Your task to perform on an android device: move an email to a new category in the gmail app Image 0: 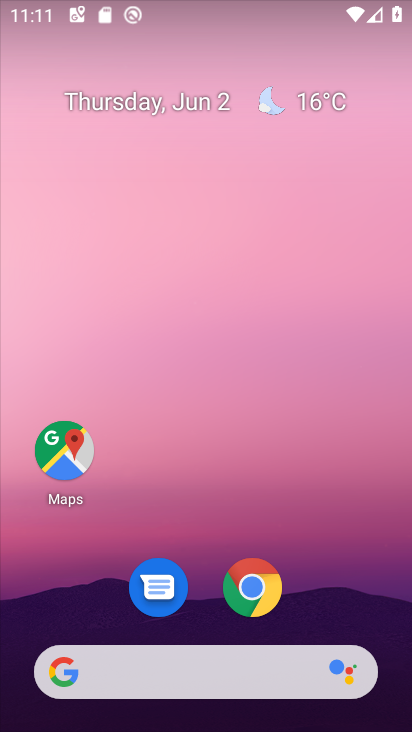
Step 0: drag from (323, 444) to (287, 0)
Your task to perform on an android device: move an email to a new category in the gmail app Image 1: 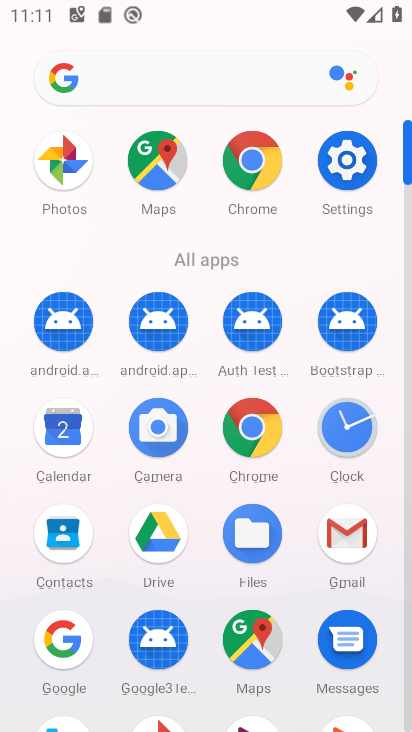
Step 1: click (335, 537)
Your task to perform on an android device: move an email to a new category in the gmail app Image 2: 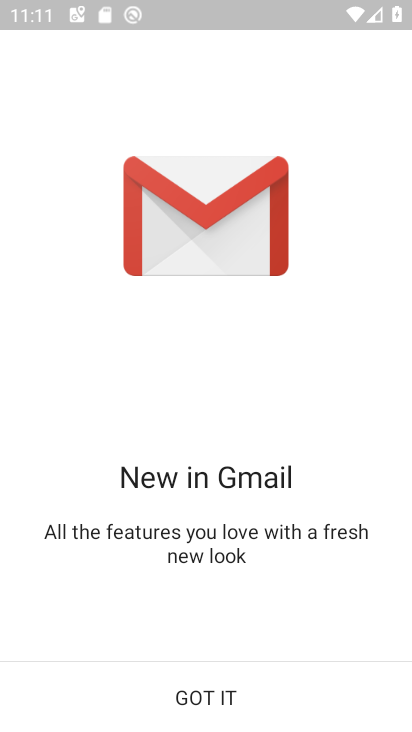
Step 2: click (252, 694)
Your task to perform on an android device: move an email to a new category in the gmail app Image 3: 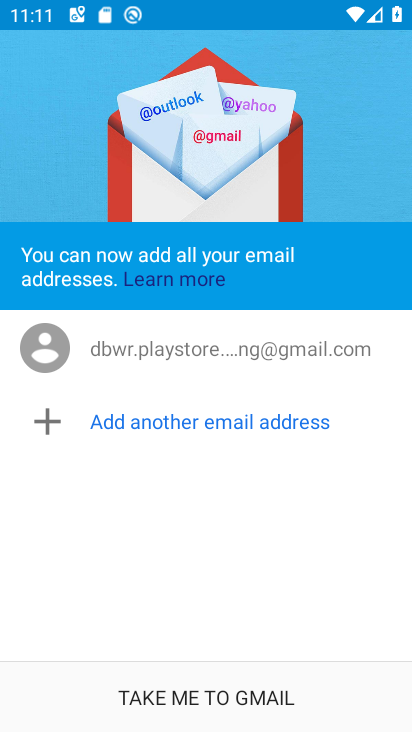
Step 3: click (254, 689)
Your task to perform on an android device: move an email to a new category in the gmail app Image 4: 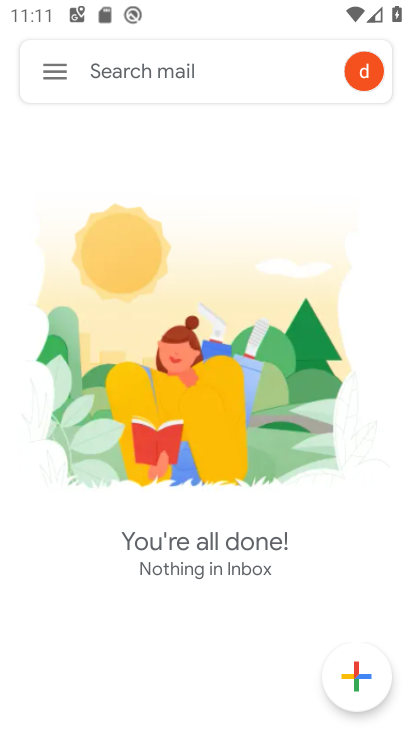
Step 4: click (50, 66)
Your task to perform on an android device: move an email to a new category in the gmail app Image 5: 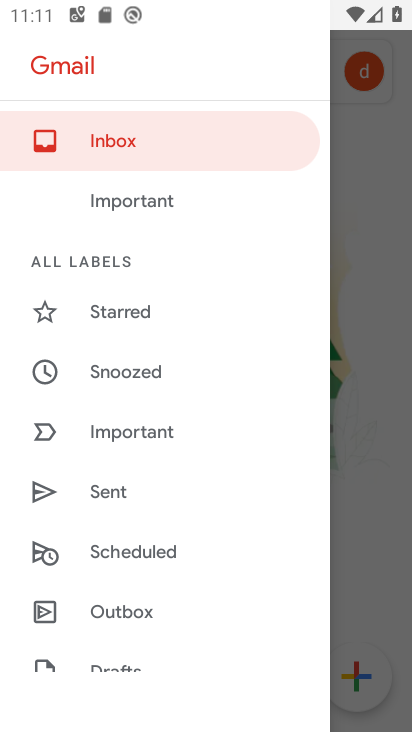
Step 5: drag from (167, 500) to (171, 108)
Your task to perform on an android device: move an email to a new category in the gmail app Image 6: 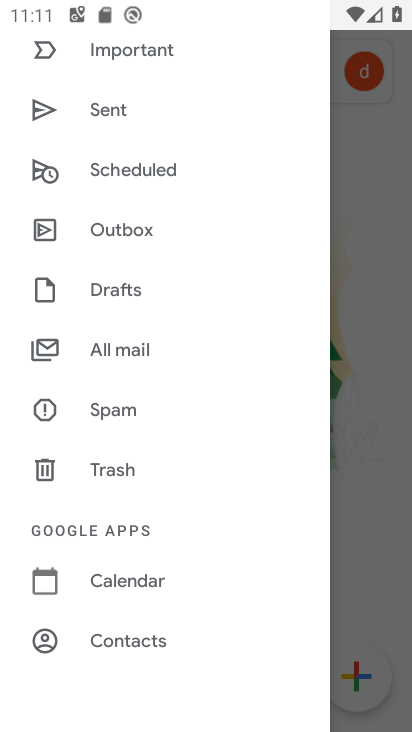
Step 6: click (127, 346)
Your task to perform on an android device: move an email to a new category in the gmail app Image 7: 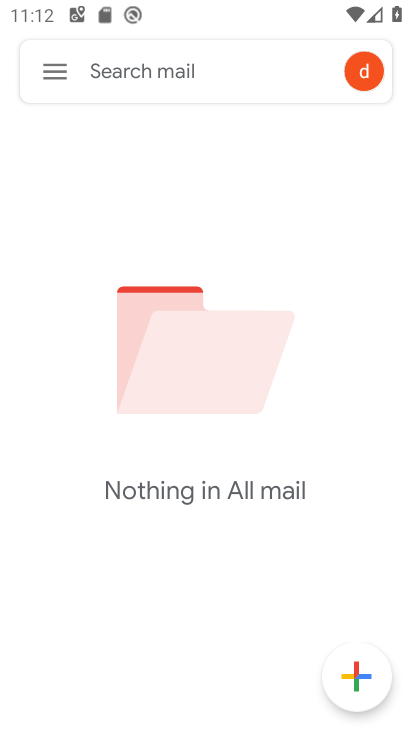
Step 7: task complete